Your task to perform on an android device: install app "Skype" Image 0: 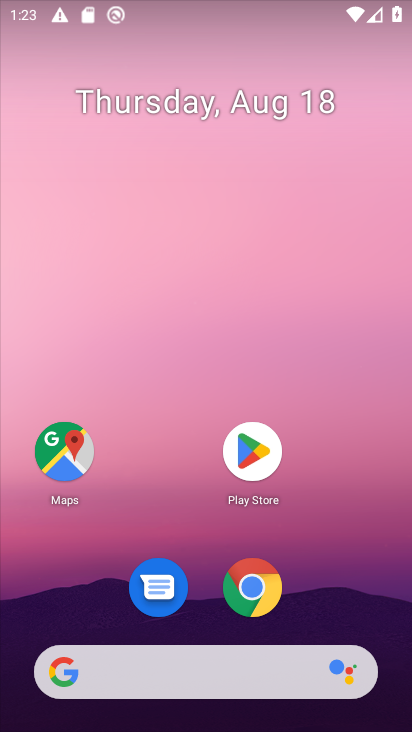
Step 0: click (262, 453)
Your task to perform on an android device: install app "Skype" Image 1: 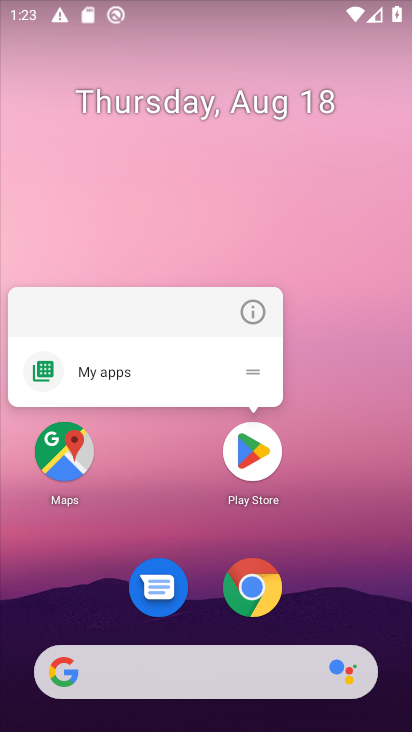
Step 1: click (250, 449)
Your task to perform on an android device: install app "Skype" Image 2: 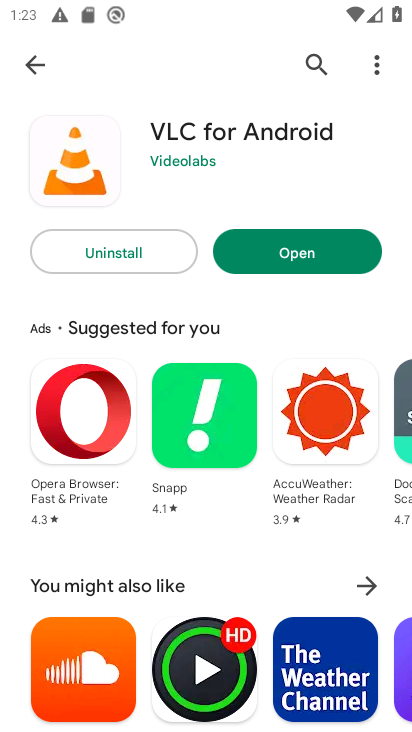
Step 2: click (315, 62)
Your task to perform on an android device: install app "Skype" Image 3: 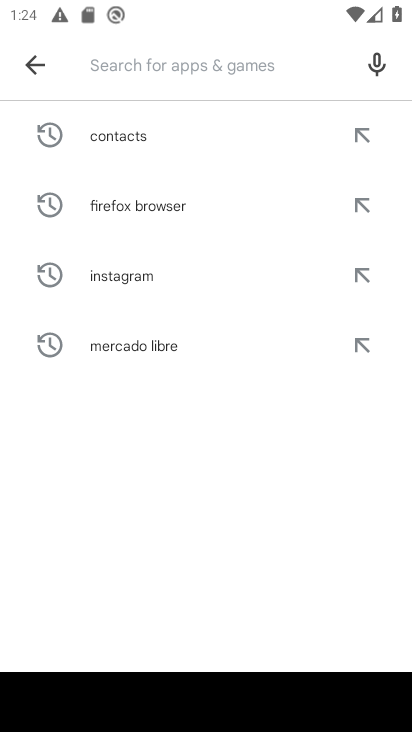
Step 3: type "Skype"
Your task to perform on an android device: install app "Skype" Image 4: 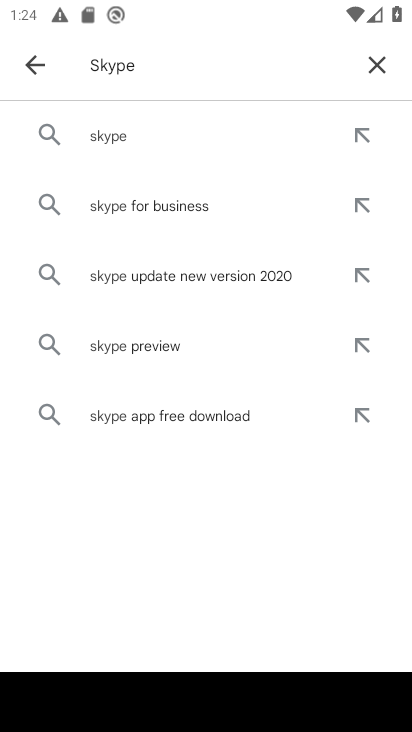
Step 4: click (121, 127)
Your task to perform on an android device: install app "Skype" Image 5: 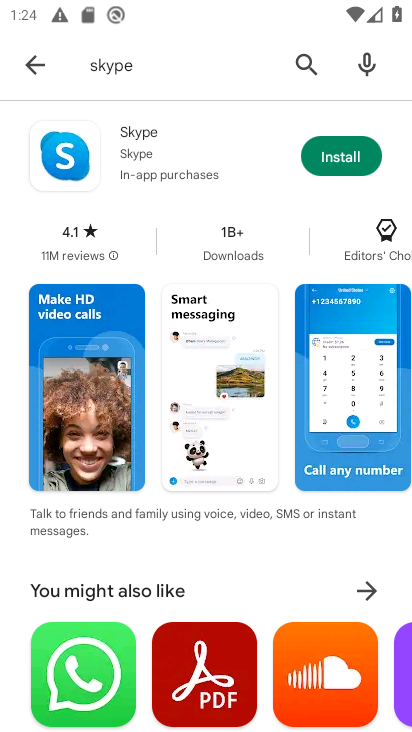
Step 5: click (346, 160)
Your task to perform on an android device: install app "Skype" Image 6: 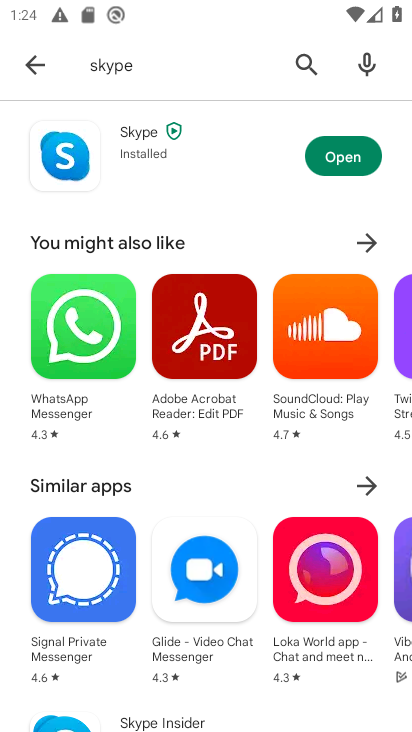
Step 6: task complete